Your task to perform on an android device: Open network settings Image 0: 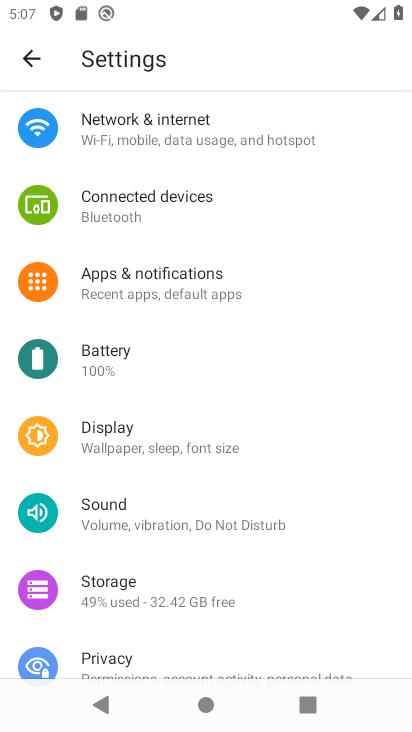
Step 0: click (216, 129)
Your task to perform on an android device: Open network settings Image 1: 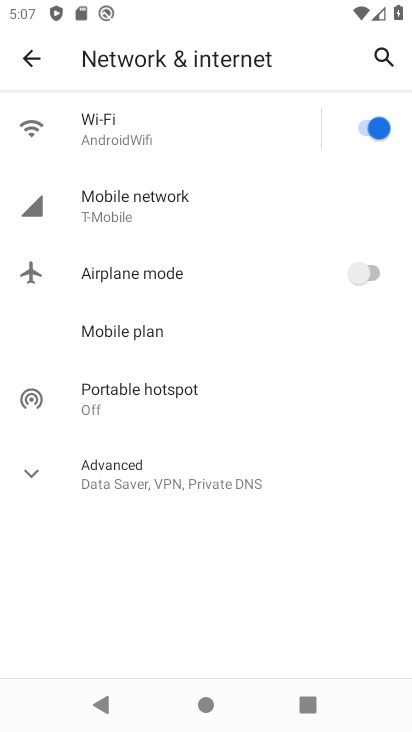
Step 1: task complete